Your task to perform on an android device: Go to wifi settings Image 0: 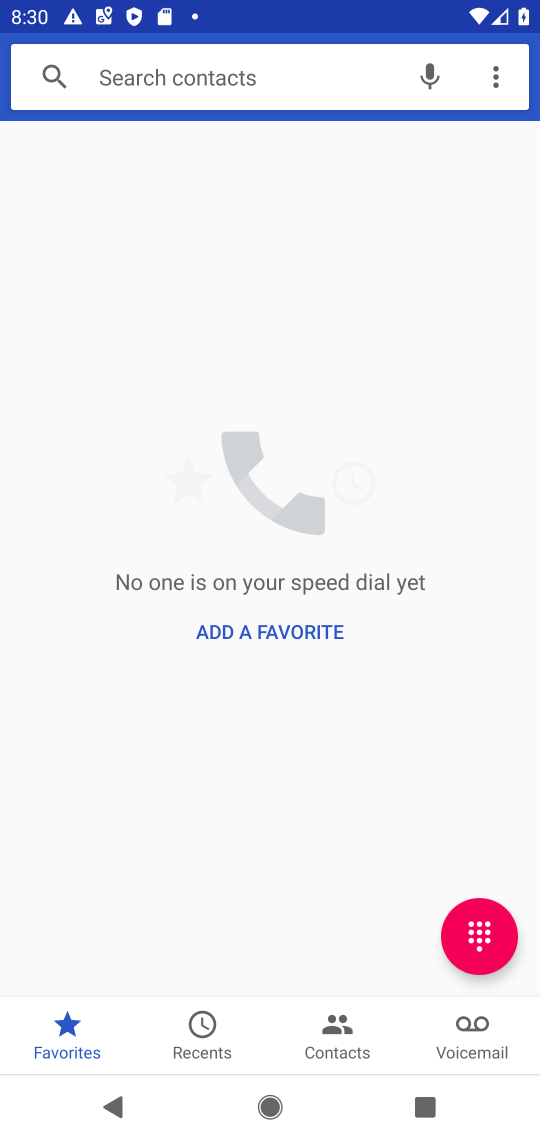
Step 0: press home button
Your task to perform on an android device: Go to wifi settings Image 1: 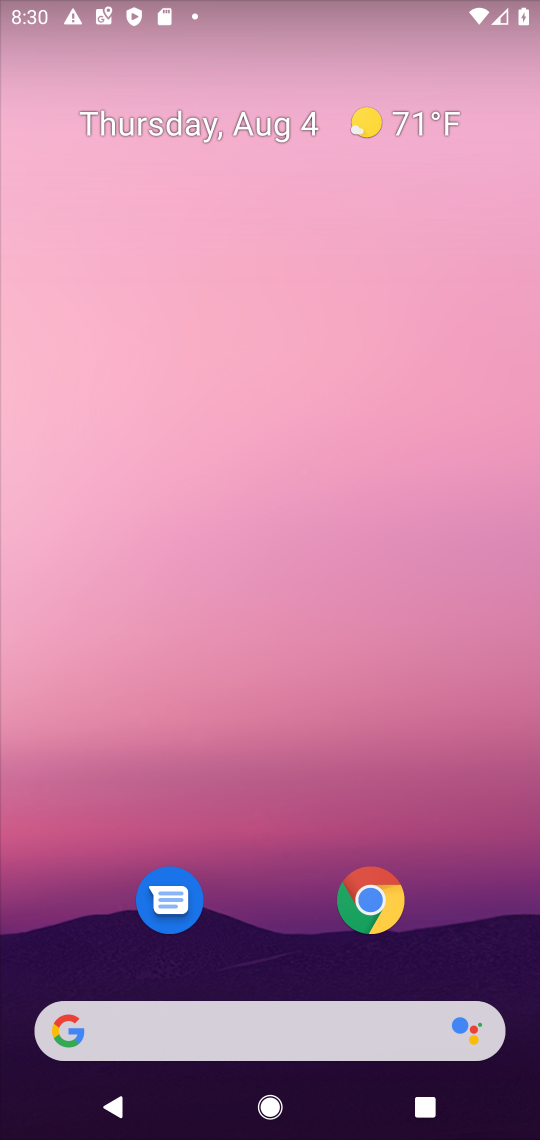
Step 1: drag from (282, 698) to (296, 353)
Your task to perform on an android device: Go to wifi settings Image 2: 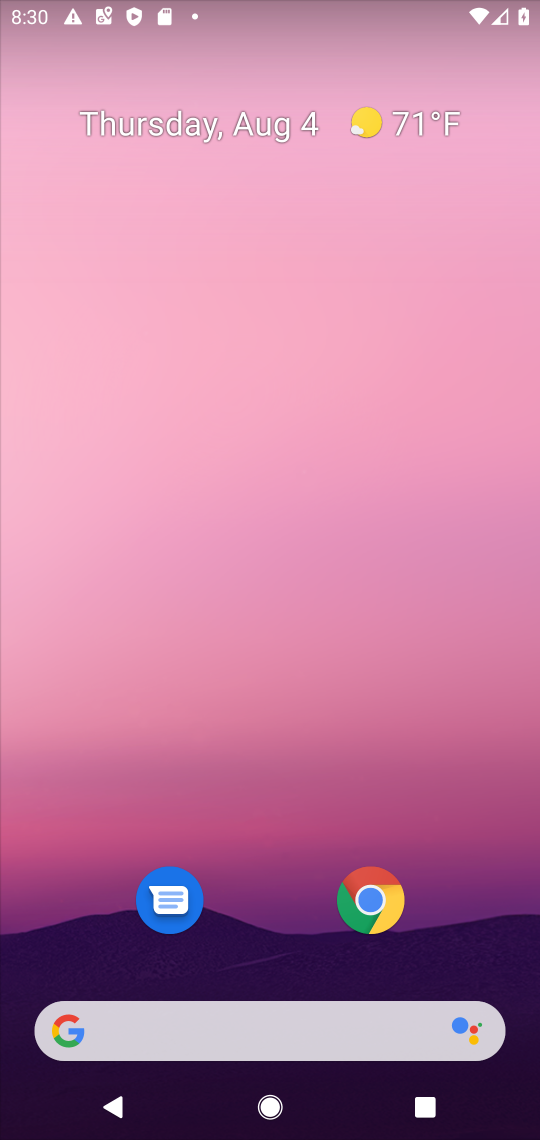
Step 2: drag from (298, 841) to (494, 3)
Your task to perform on an android device: Go to wifi settings Image 3: 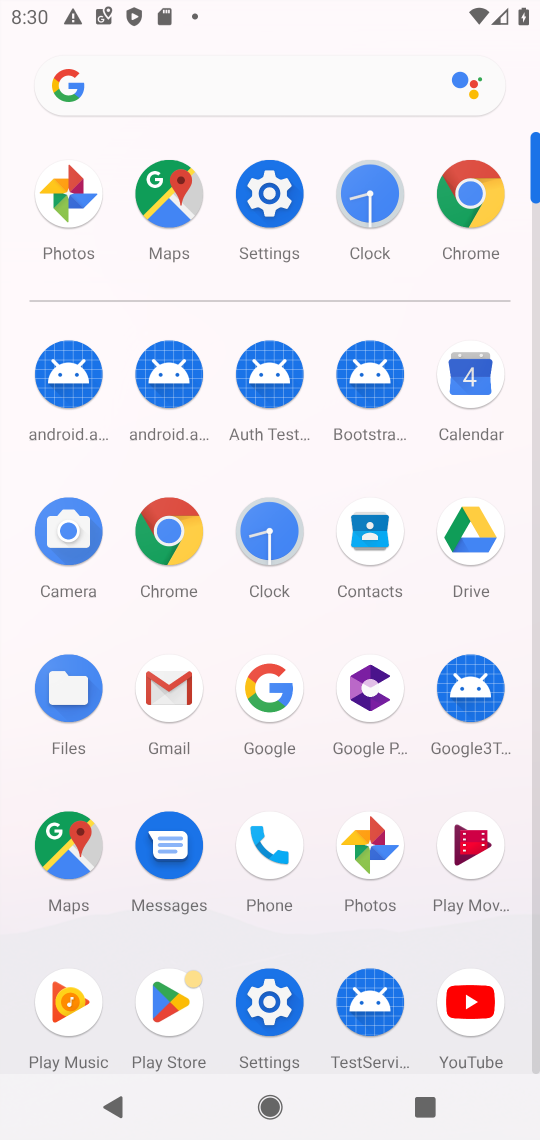
Step 3: click (267, 205)
Your task to perform on an android device: Go to wifi settings Image 4: 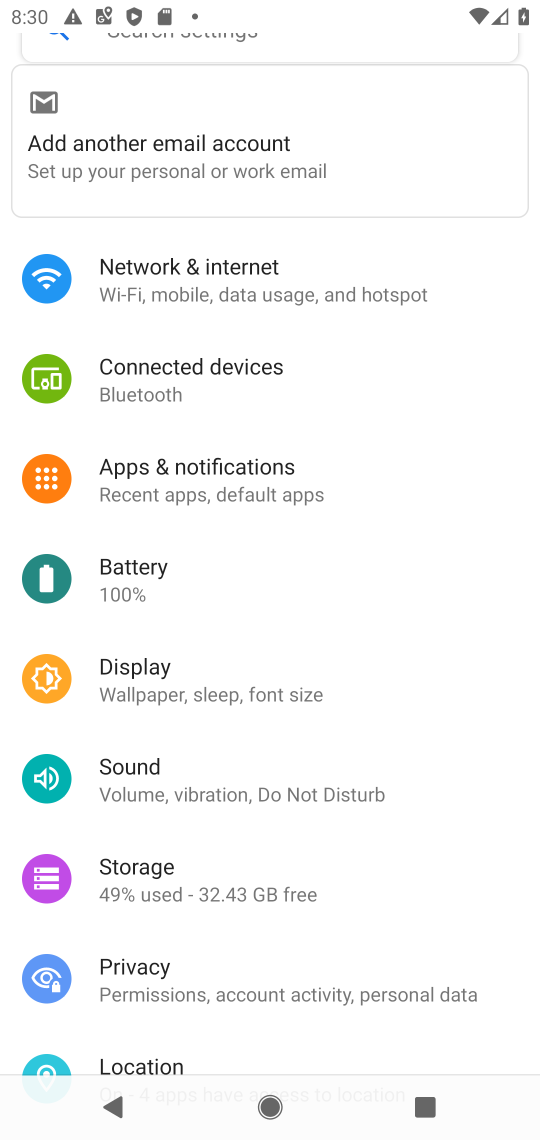
Step 4: click (212, 286)
Your task to perform on an android device: Go to wifi settings Image 5: 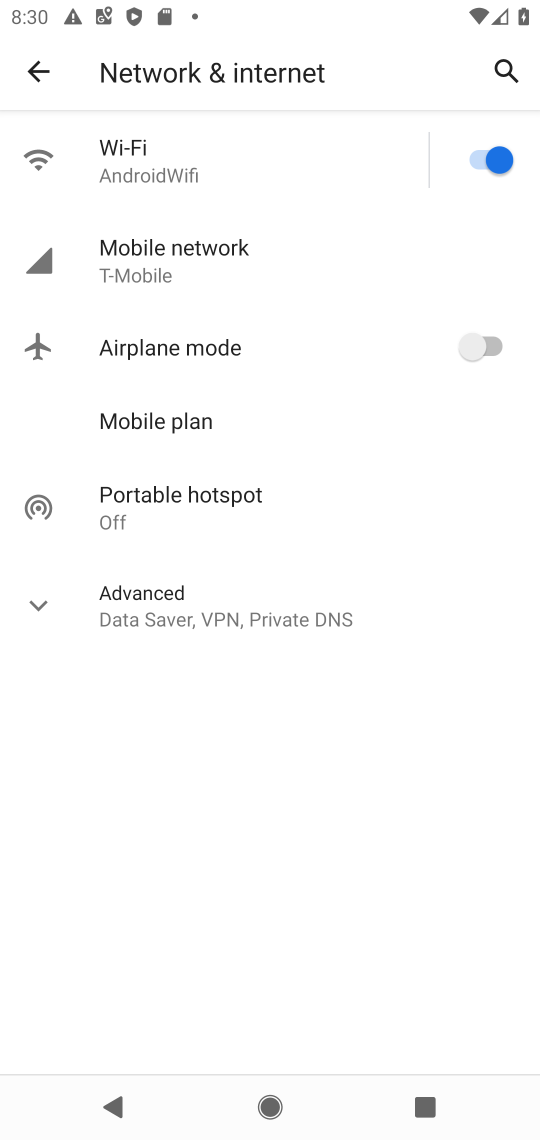
Step 5: click (152, 134)
Your task to perform on an android device: Go to wifi settings Image 6: 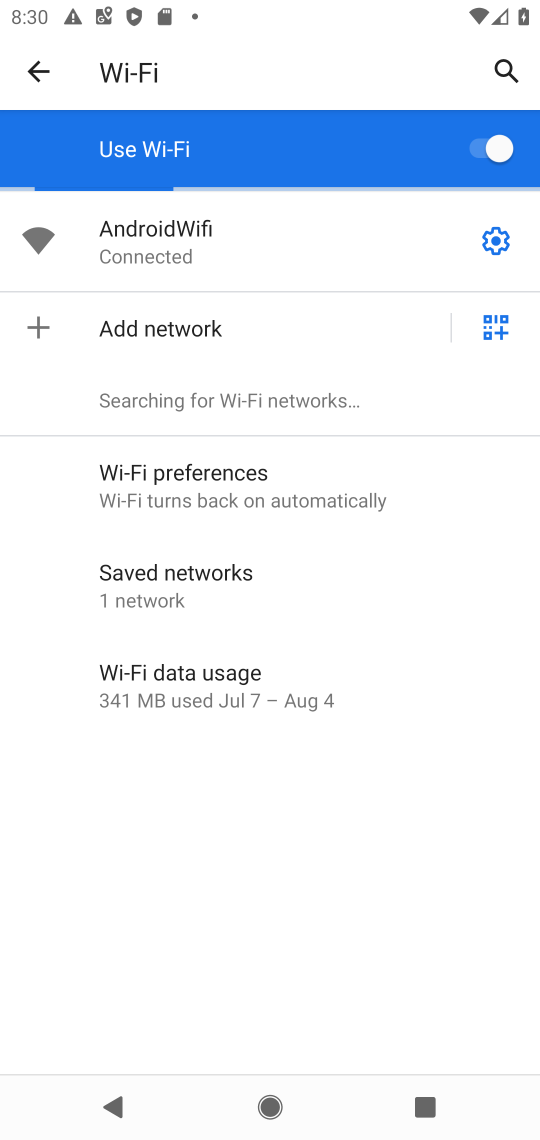
Step 6: task complete